Your task to perform on an android device: check the backup settings in the google photos Image 0: 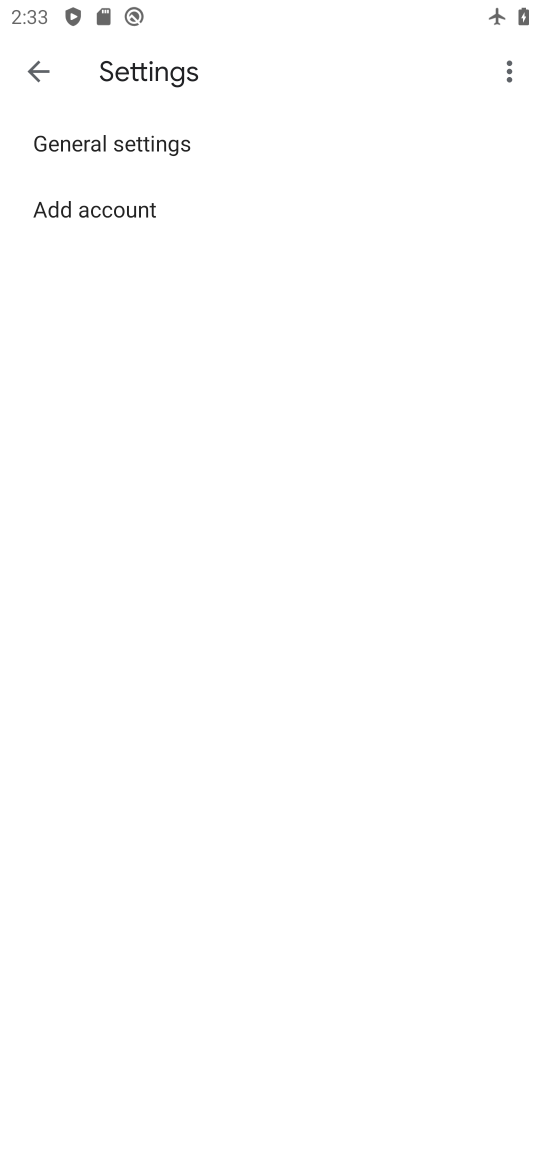
Step 0: press home button
Your task to perform on an android device: check the backup settings in the google photos Image 1: 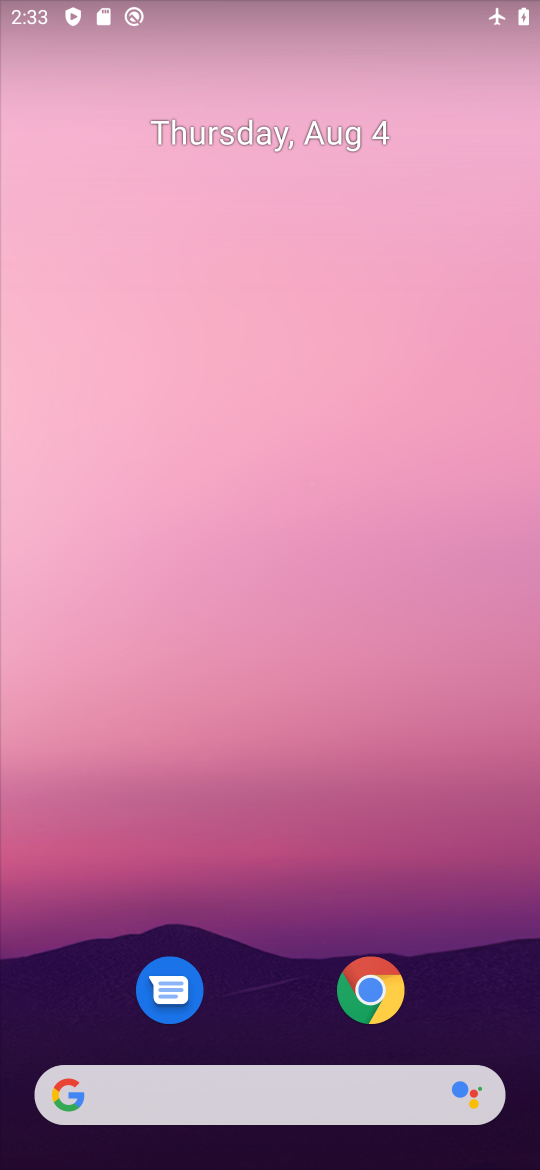
Step 1: drag from (269, 1032) to (283, 353)
Your task to perform on an android device: check the backup settings in the google photos Image 2: 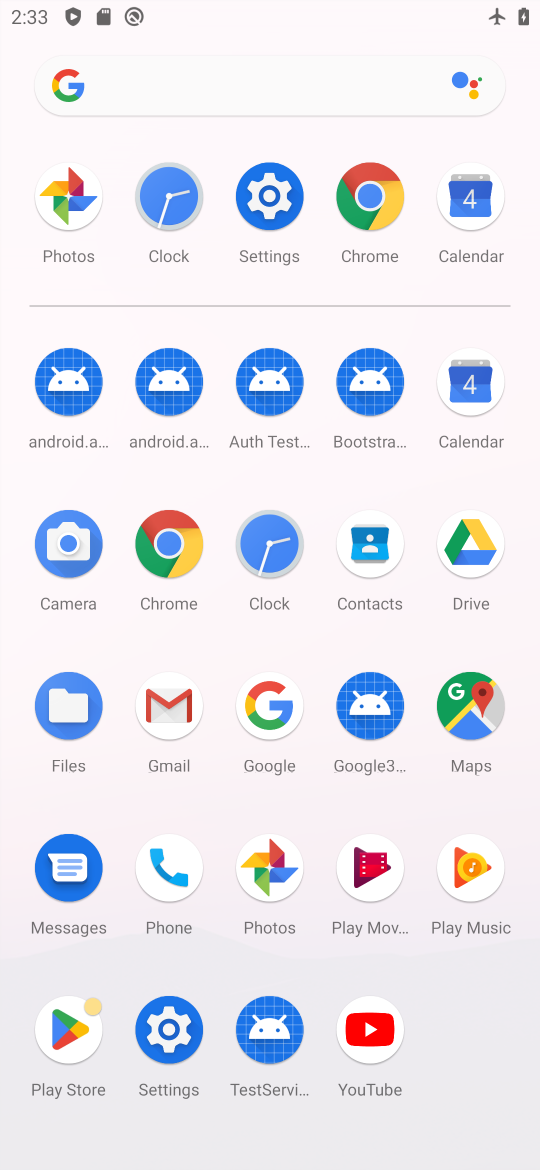
Step 2: click (59, 216)
Your task to perform on an android device: check the backup settings in the google photos Image 3: 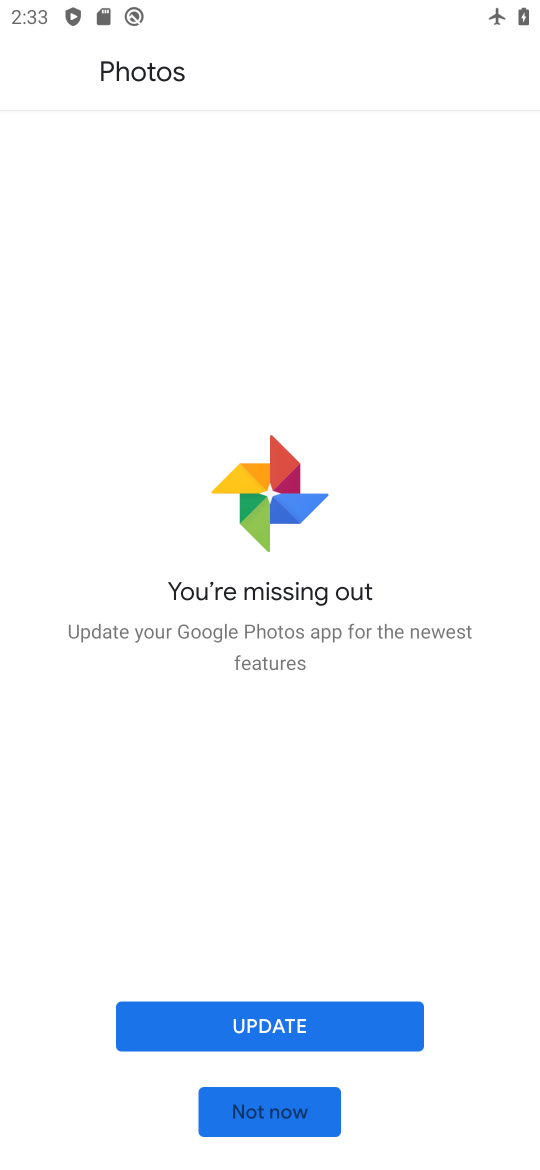
Step 3: click (311, 1107)
Your task to perform on an android device: check the backup settings in the google photos Image 4: 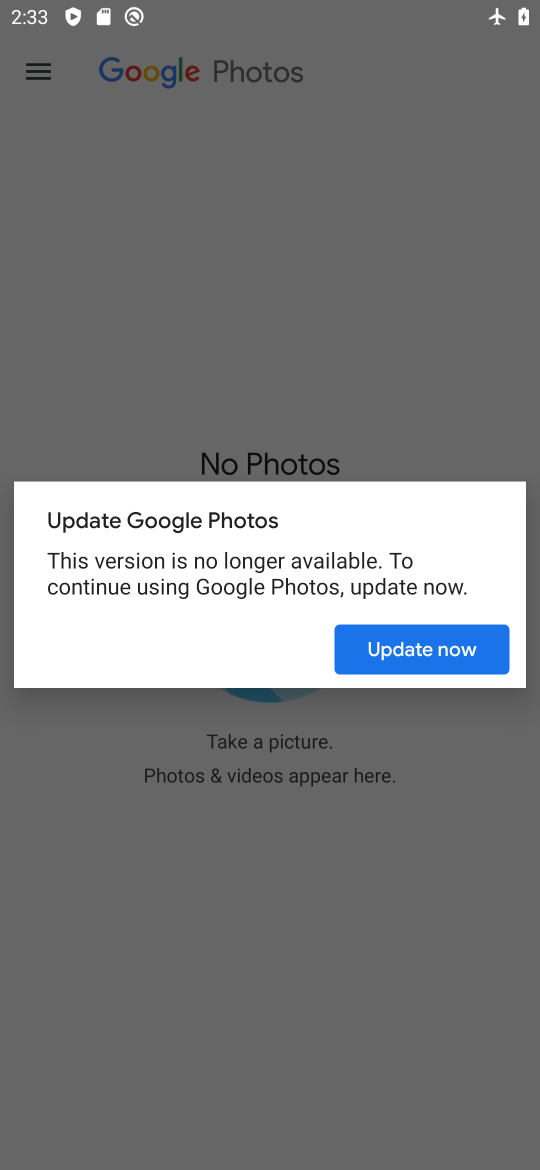
Step 4: click (430, 642)
Your task to perform on an android device: check the backup settings in the google photos Image 5: 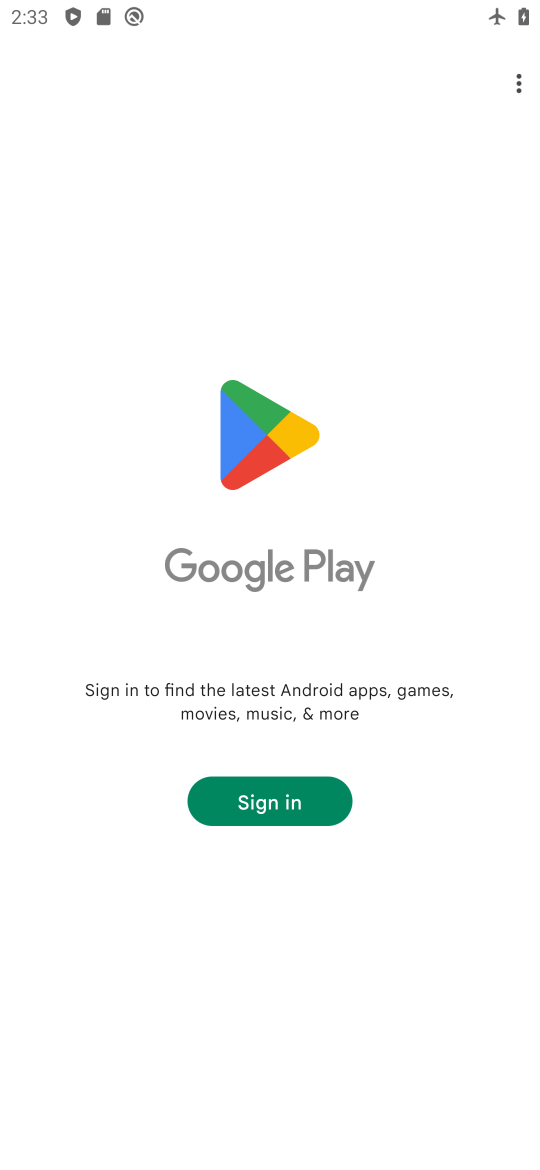
Step 5: task complete